Your task to perform on an android device: Turn on the flashlight Image 0: 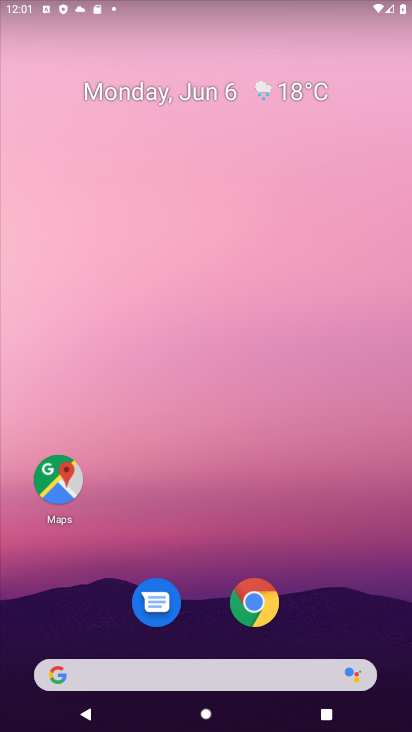
Step 0: drag from (333, 596) to (270, 82)
Your task to perform on an android device: Turn on the flashlight Image 1: 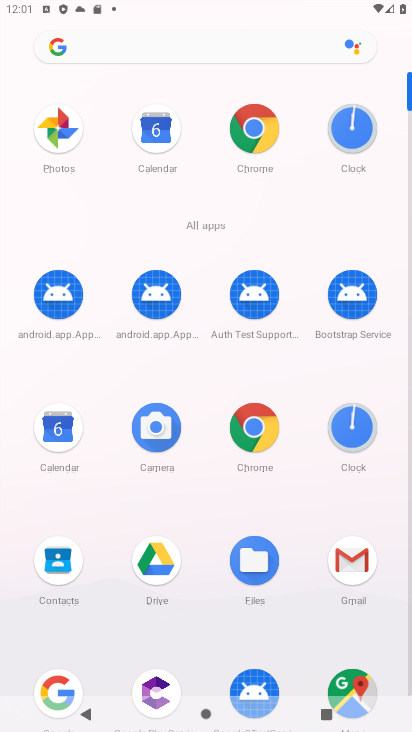
Step 1: task complete